Your task to perform on an android device: What's on my calendar tomorrow? Image 0: 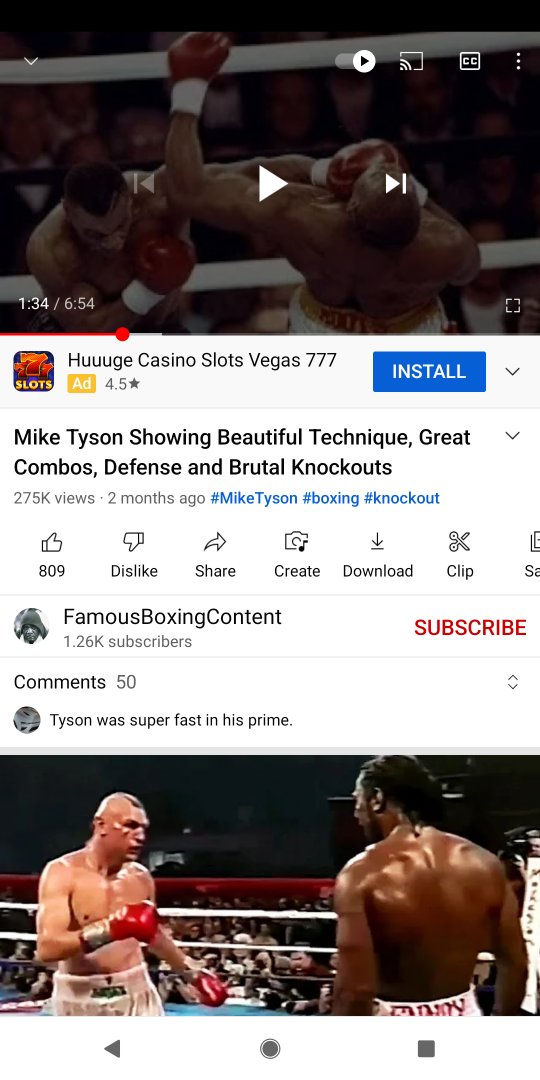
Step 0: press home button
Your task to perform on an android device: What's on my calendar tomorrow? Image 1: 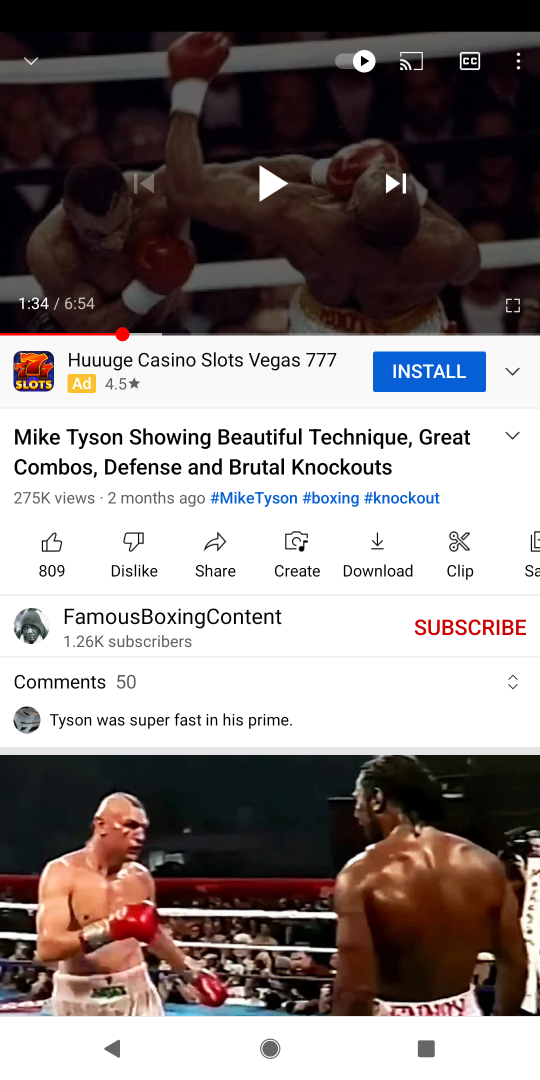
Step 1: press home button
Your task to perform on an android device: What's on my calendar tomorrow? Image 2: 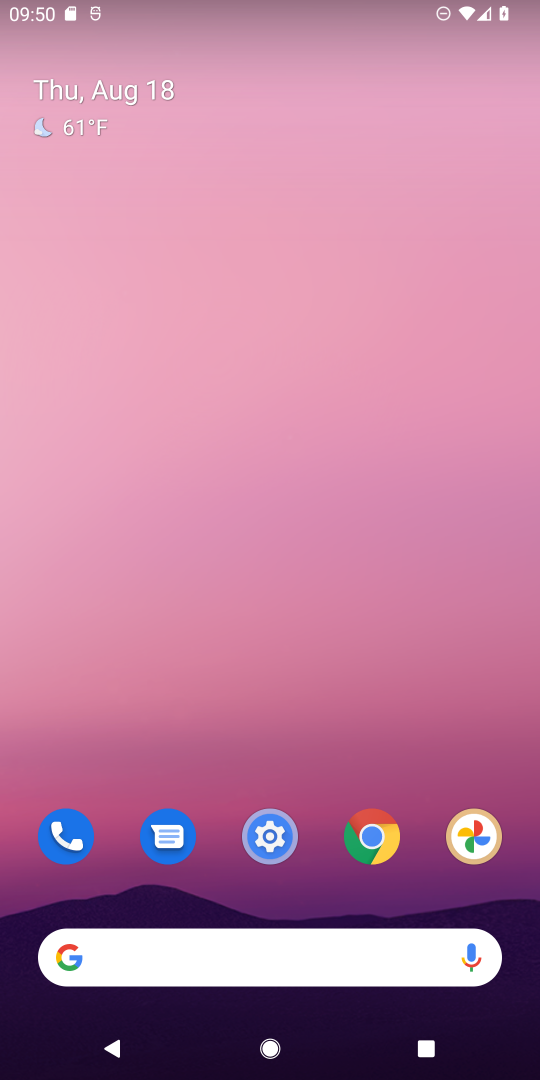
Step 2: click (122, 97)
Your task to perform on an android device: What's on my calendar tomorrow? Image 3: 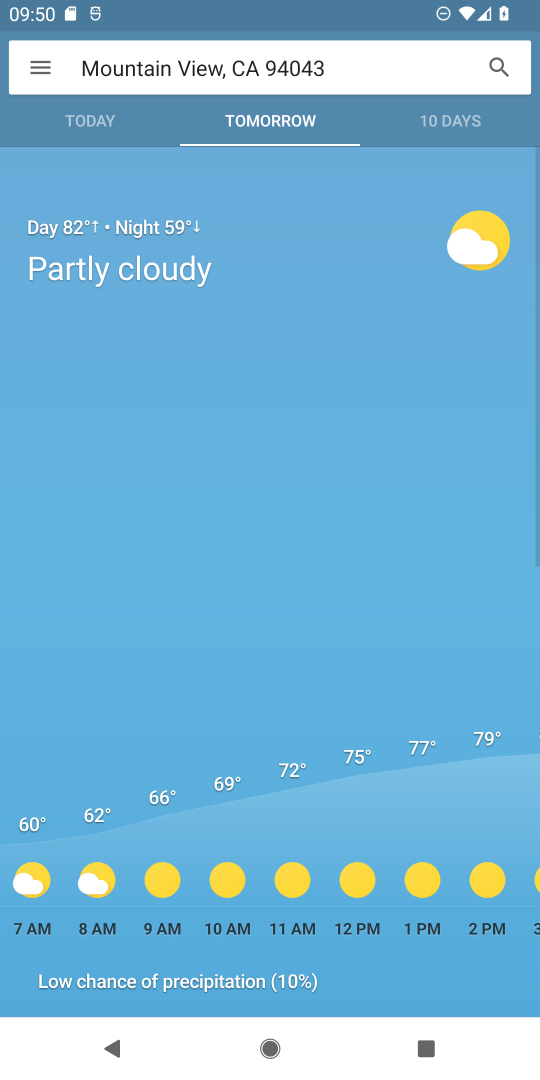
Step 3: press home button
Your task to perform on an android device: What's on my calendar tomorrow? Image 4: 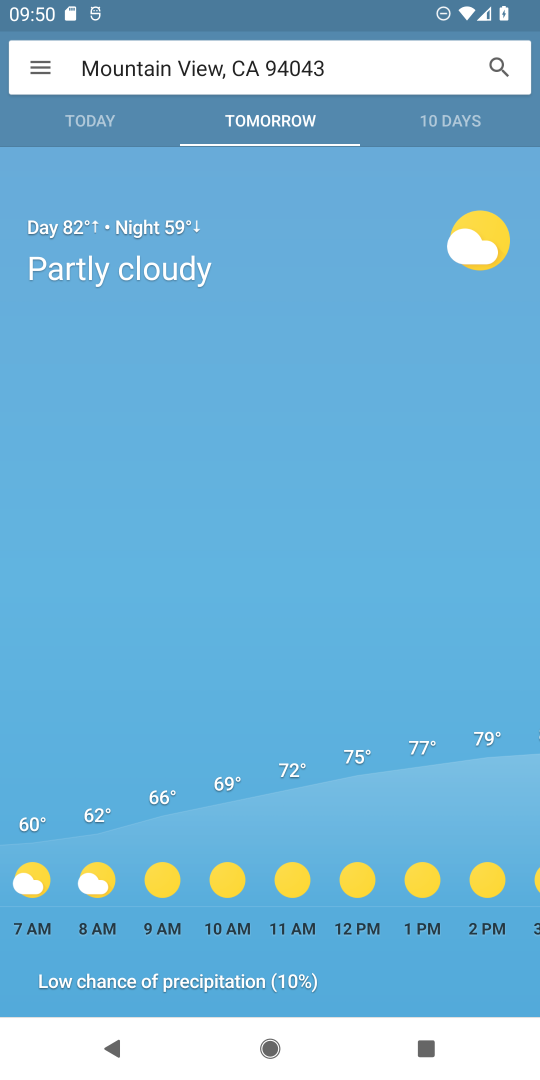
Step 4: press home button
Your task to perform on an android device: What's on my calendar tomorrow? Image 5: 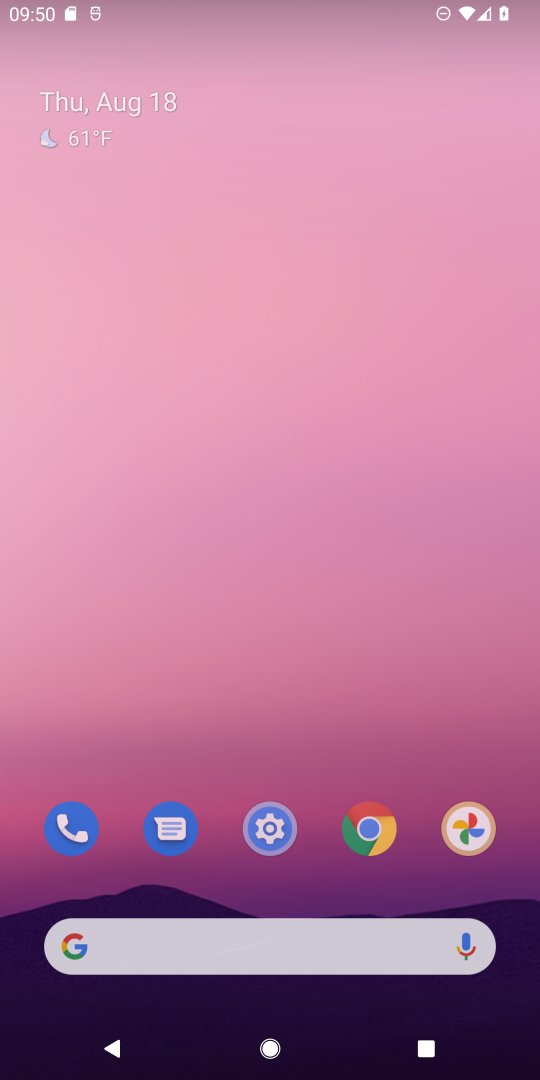
Step 5: press home button
Your task to perform on an android device: What's on my calendar tomorrow? Image 6: 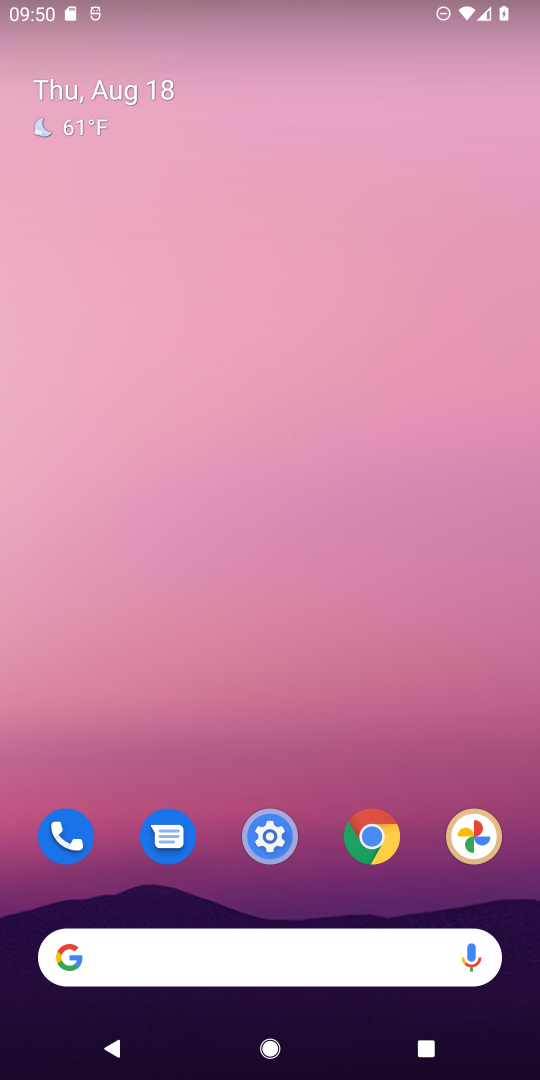
Step 6: drag from (333, 743) to (342, 203)
Your task to perform on an android device: What's on my calendar tomorrow? Image 7: 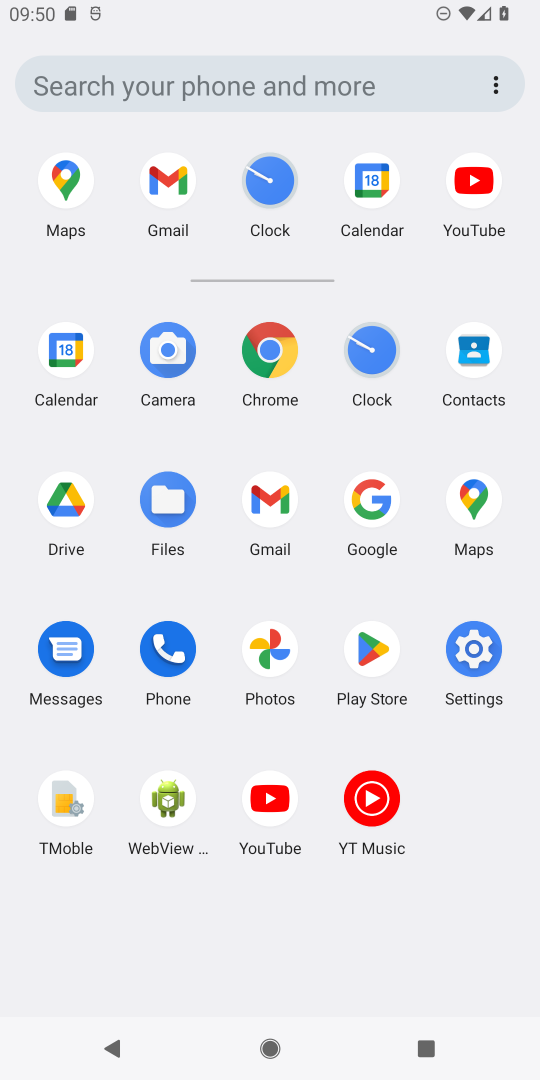
Step 7: click (65, 362)
Your task to perform on an android device: What's on my calendar tomorrow? Image 8: 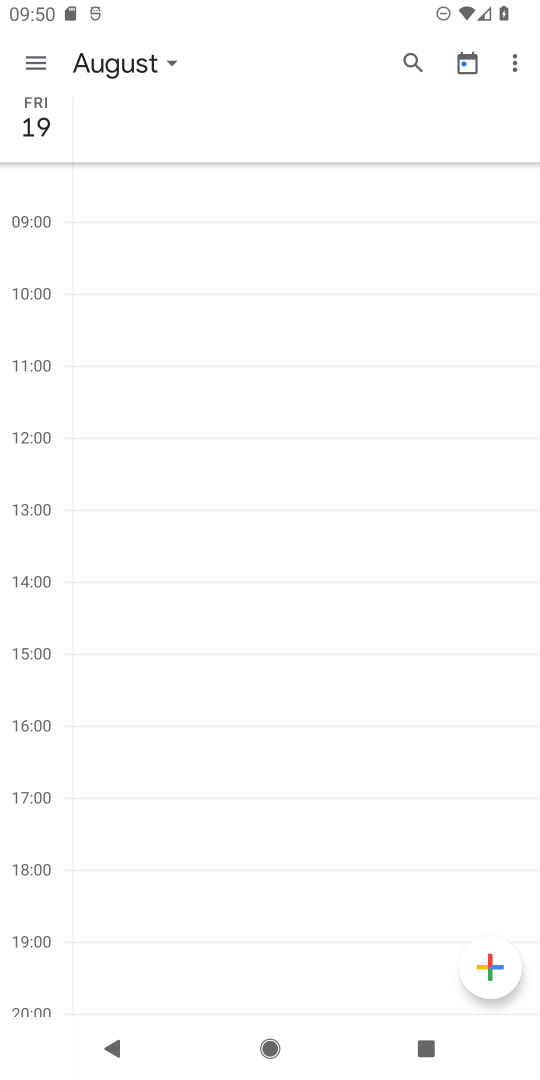
Step 8: click (117, 69)
Your task to perform on an android device: What's on my calendar tomorrow? Image 9: 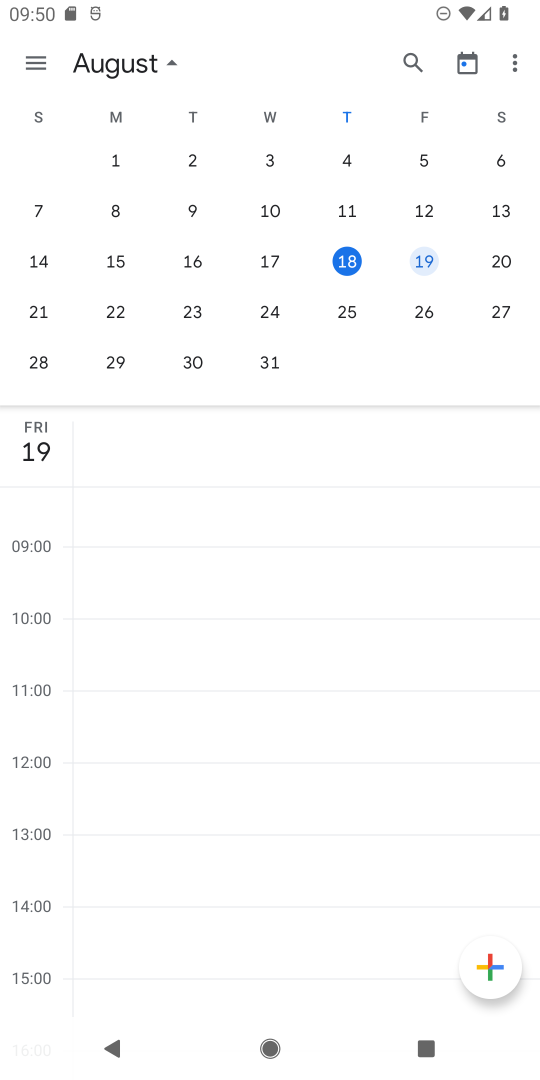
Step 9: drag from (420, 293) to (75, 336)
Your task to perform on an android device: What's on my calendar tomorrow? Image 10: 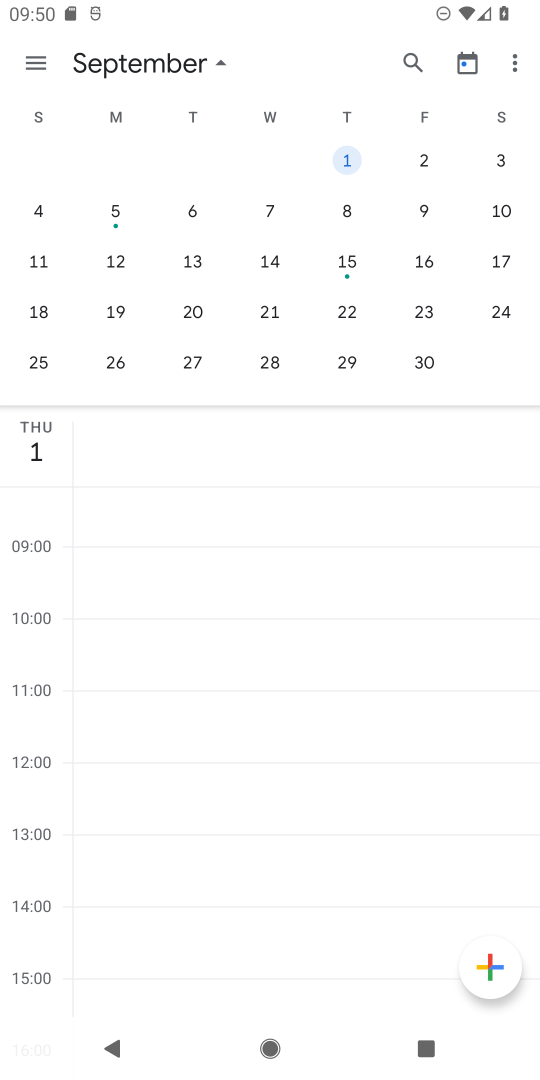
Step 10: drag from (68, 288) to (524, 335)
Your task to perform on an android device: What's on my calendar tomorrow? Image 11: 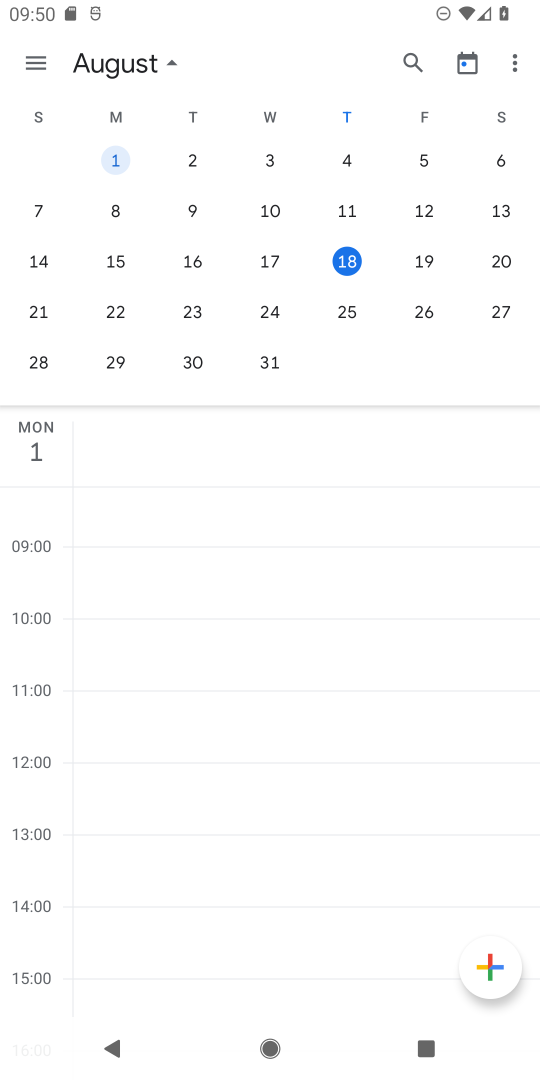
Step 11: click (416, 254)
Your task to perform on an android device: What's on my calendar tomorrow? Image 12: 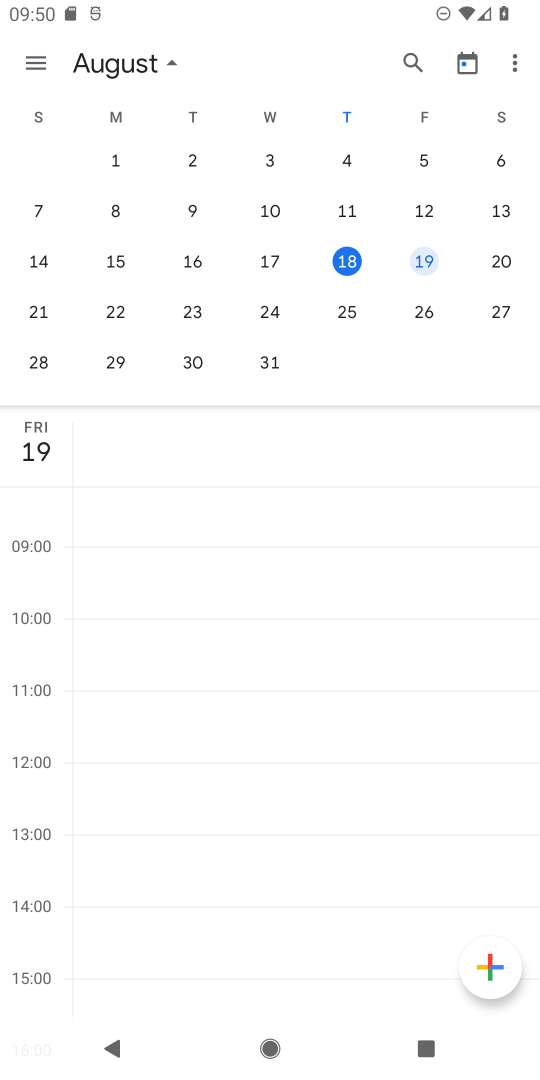
Step 12: task complete